Your task to perform on an android device: Open accessibility settings Image 0: 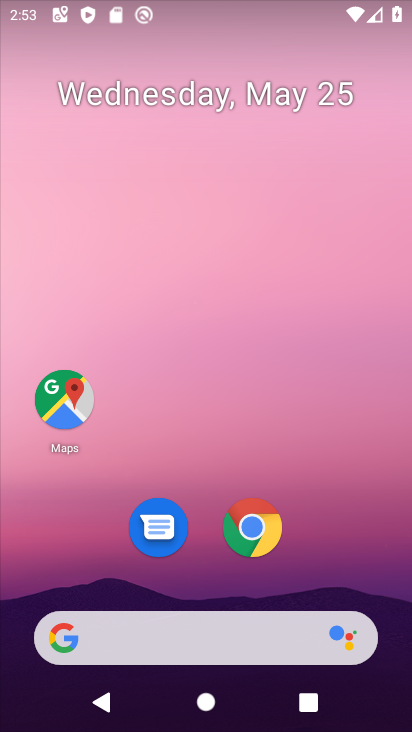
Step 0: drag from (236, 541) to (308, 25)
Your task to perform on an android device: Open accessibility settings Image 1: 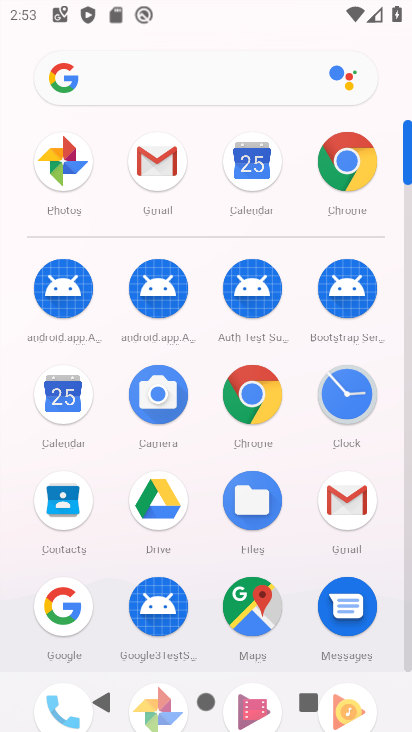
Step 1: drag from (178, 580) to (203, 179)
Your task to perform on an android device: Open accessibility settings Image 2: 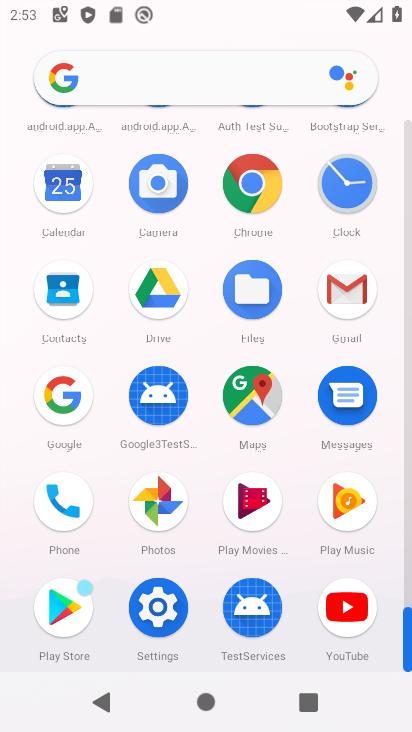
Step 2: click (147, 609)
Your task to perform on an android device: Open accessibility settings Image 3: 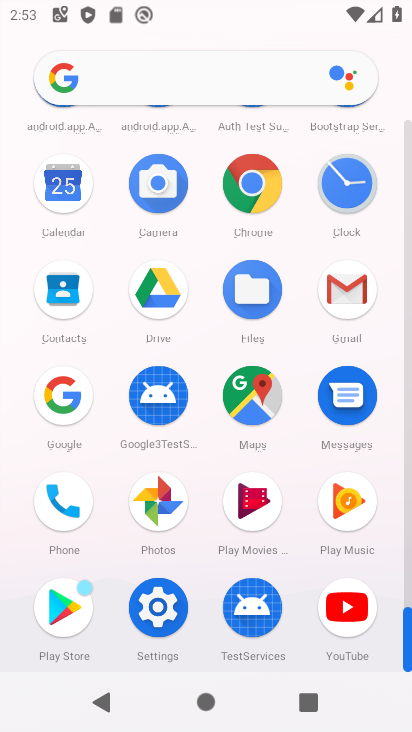
Step 3: click (147, 609)
Your task to perform on an android device: Open accessibility settings Image 4: 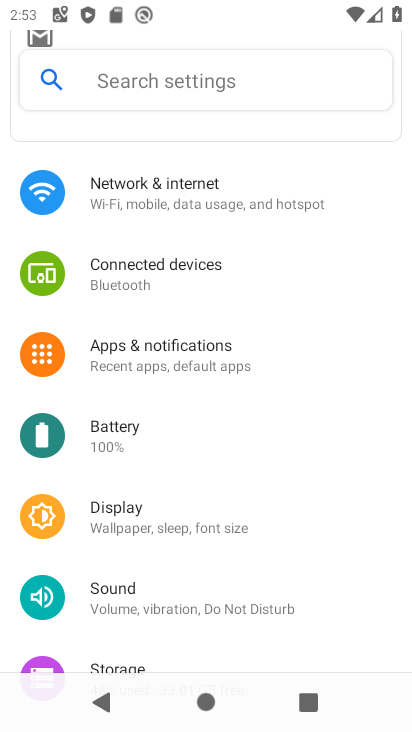
Step 4: drag from (223, 534) to (301, 9)
Your task to perform on an android device: Open accessibility settings Image 5: 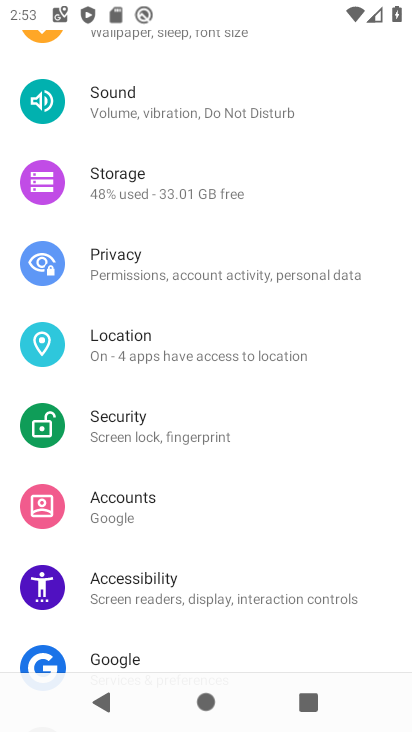
Step 5: click (179, 575)
Your task to perform on an android device: Open accessibility settings Image 6: 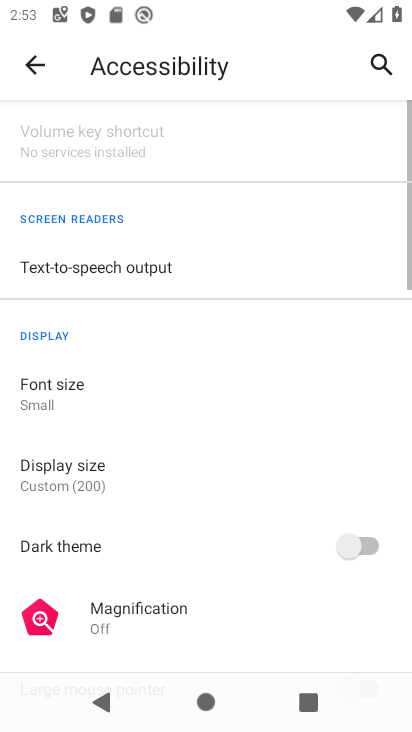
Step 6: task complete